Your task to perform on an android device: Clear the shopping cart on bestbuy.com. Add razer kraken to the cart on bestbuy.com Image 0: 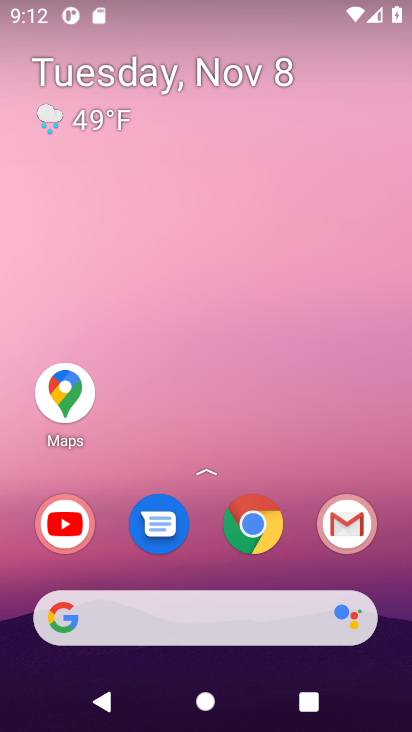
Step 0: click (255, 537)
Your task to perform on an android device: Clear the shopping cart on bestbuy.com. Add razer kraken to the cart on bestbuy.com Image 1: 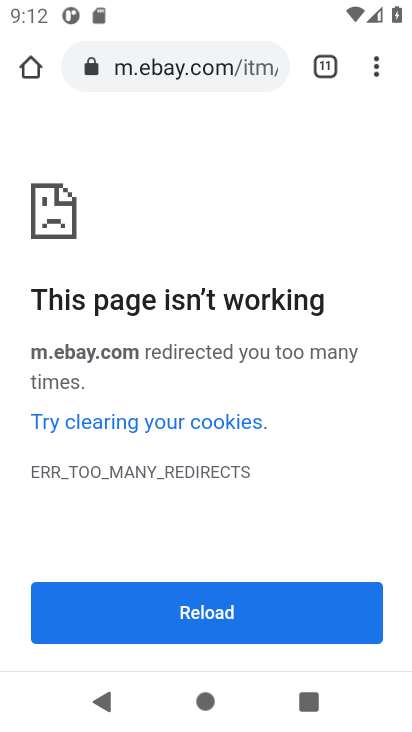
Step 1: click (157, 69)
Your task to perform on an android device: Clear the shopping cart on bestbuy.com. Add razer kraken to the cart on bestbuy.com Image 2: 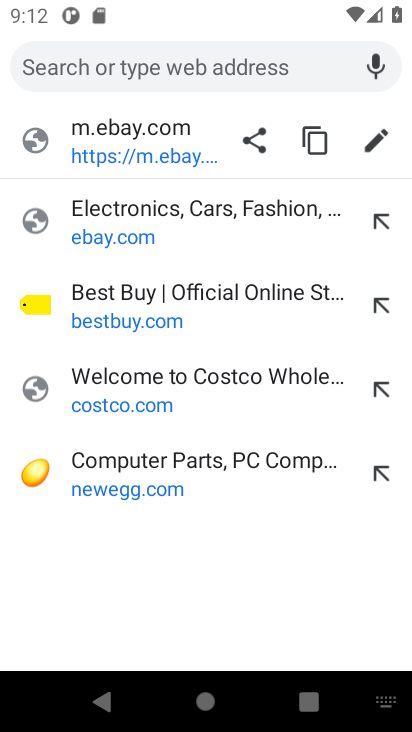
Step 2: click (124, 319)
Your task to perform on an android device: Clear the shopping cart on bestbuy.com. Add razer kraken to the cart on bestbuy.com Image 3: 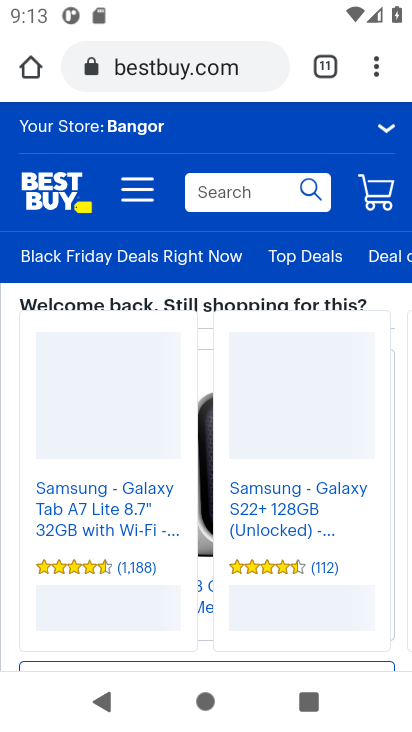
Step 3: click (374, 197)
Your task to perform on an android device: Clear the shopping cart on bestbuy.com. Add razer kraken to the cart on bestbuy.com Image 4: 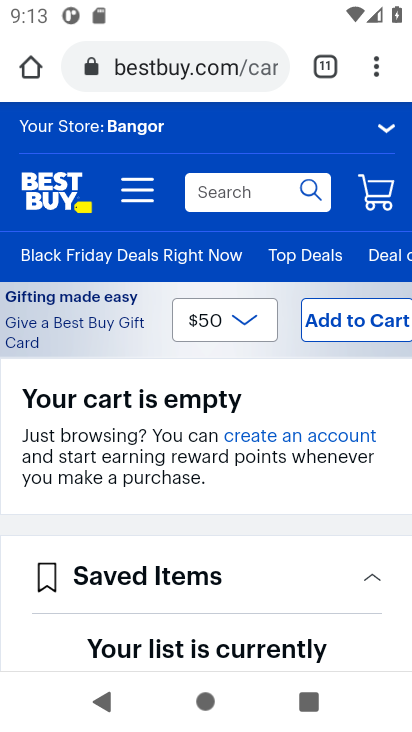
Step 4: drag from (218, 575) to (234, 382)
Your task to perform on an android device: Clear the shopping cart on bestbuy.com. Add razer kraken to the cart on bestbuy.com Image 5: 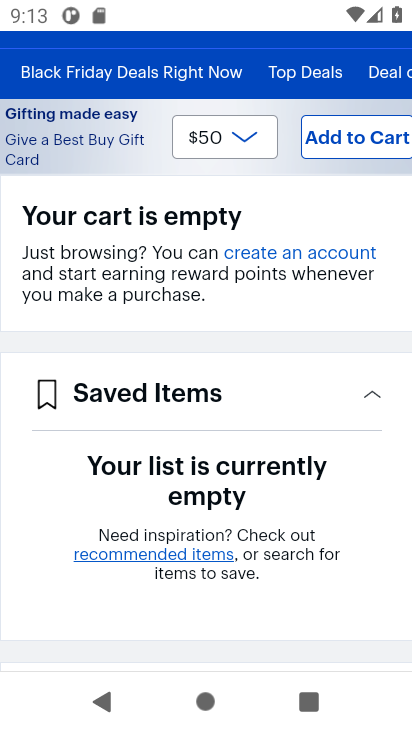
Step 5: drag from (188, 405) to (187, 719)
Your task to perform on an android device: Clear the shopping cart on bestbuy.com. Add razer kraken to the cart on bestbuy.com Image 6: 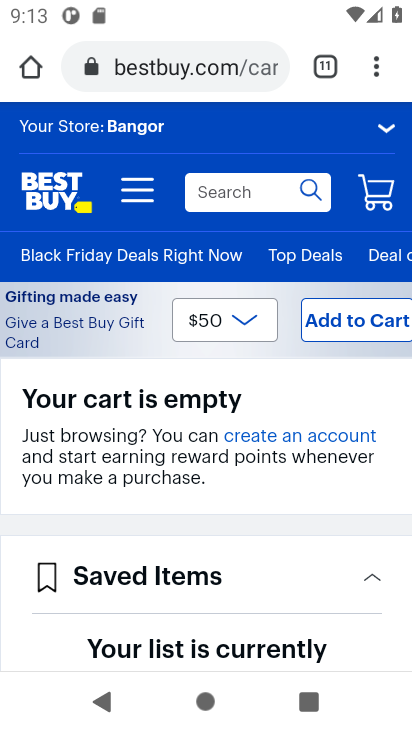
Step 6: click (239, 196)
Your task to perform on an android device: Clear the shopping cart on bestbuy.com. Add razer kraken to the cart on bestbuy.com Image 7: 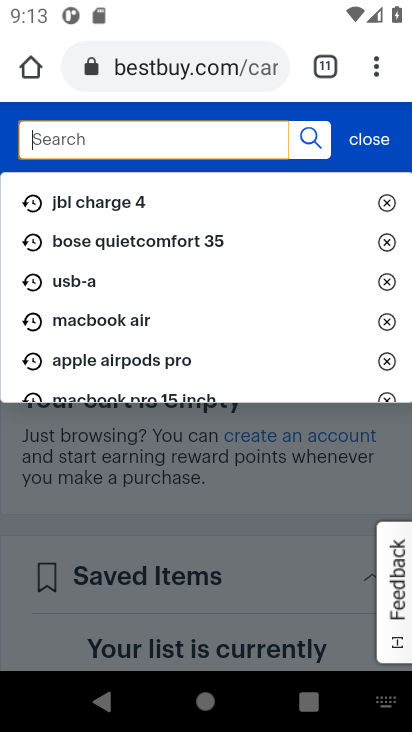
Step 7: type "razer kraken"
Your task to perform on an android device: Clear the shopping cart on bestbuy.com. Add razer kraken to the cart on bestbuy.com Image 8: 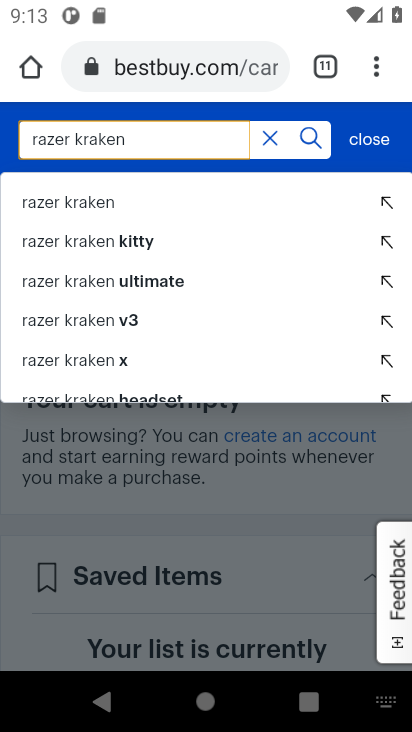
Step 8: click (63, 204)
Your task to perform on an android device: Clear the shopping cart on bestbuy.com. Add razer kraken to the cart on bestbuy.com Image 9: 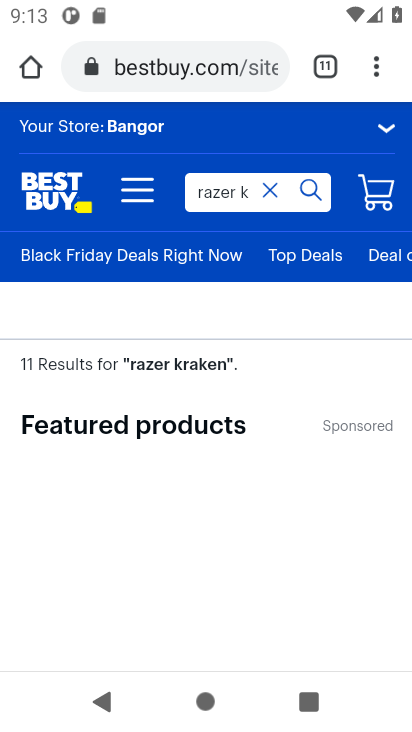
Step 9: drag from (170, 550) to (148, 236)
Your task to perform on an android device: Clear the shopping cart on bestbuy.com. Add razer kraken to the cart on bestbuy.com Image 10: 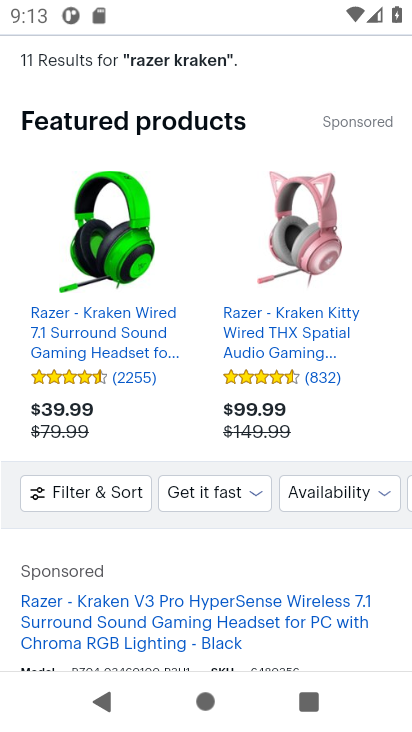
Step 10: drag from (150, 520) to (113, 84)
Your task to perform on an android device: Clear the shopping cart on bestbuy.com. Add razer kraken to the cart on bestbuy.com Image 11: 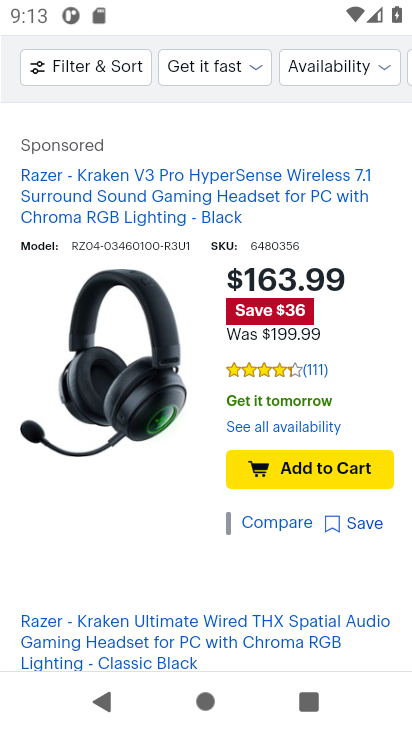
Step 11: click (332, 468)
Your task to perform on an android device: Clear the shopping cart on bestbuy.com. Add razer kraken to the cart on bestbuy.com Image 12: 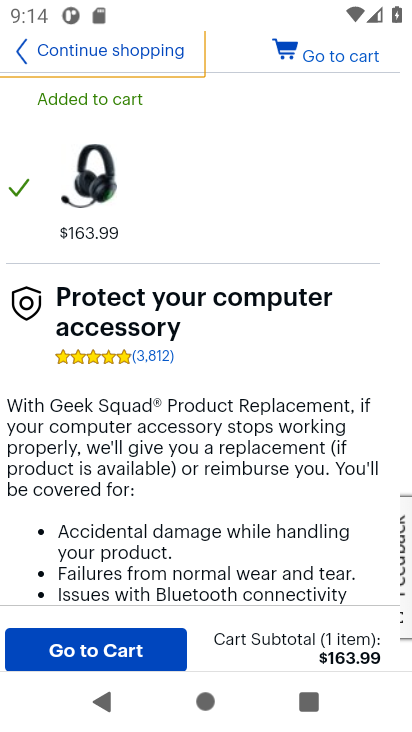
Step 12: drag from (186, 234) to (195, 437)
Your task to perform on an android device: Clear the shopping cart on bestbuy.com. Add razer kraken to the cart on bestbuy.com Image 13: 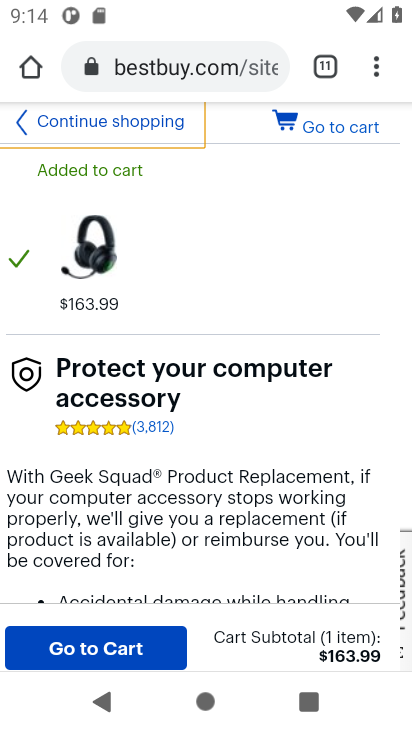
Step 13: click (333, 131)
Your task to perform on an android device: Clear the shopping cart on bestbuy.com. Add razer kraken to the cart on bestbuy.com Image 14: 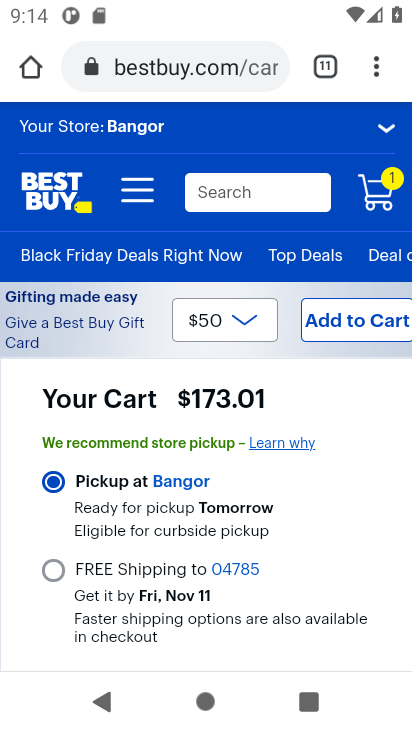
Step 14: task complete